Your task to perform on an android device: check the backup settings in the google photos Image 0: 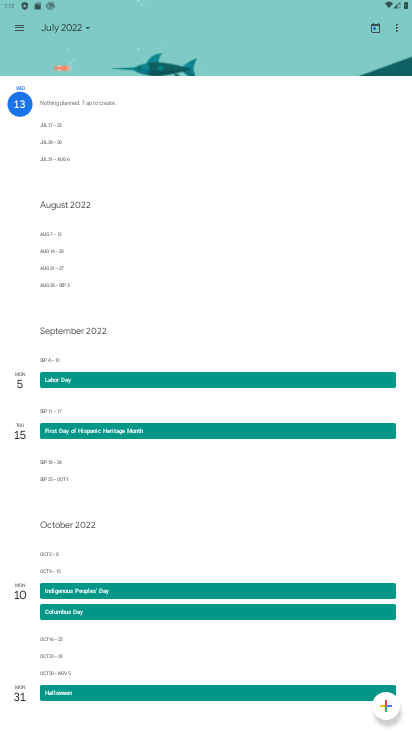
Step 0: press home button
Your task to perform on an android device: check the backup settings in the google photos Image 1: 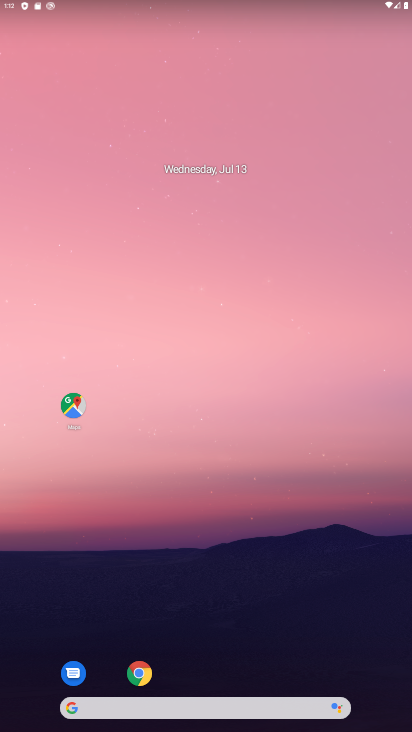
Step 1: drag from (220, 684) to (227, 147)
Your task to perform on an android device: check the backup settings in the google photos Image 2: 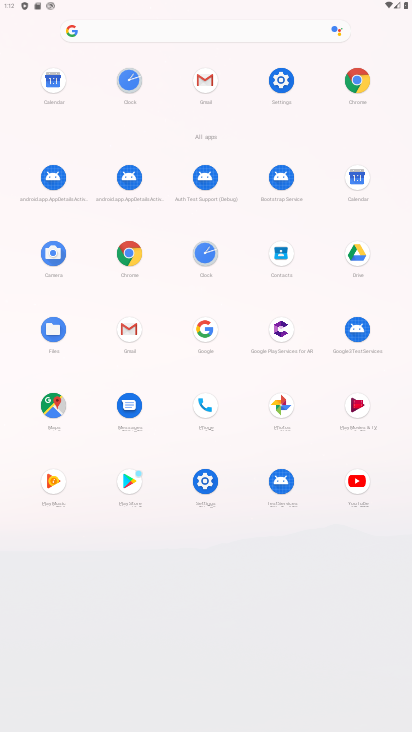
Step 2: click (277, 402)
Your task to perform on an android device: check the backup settings in the google photos Image 3: 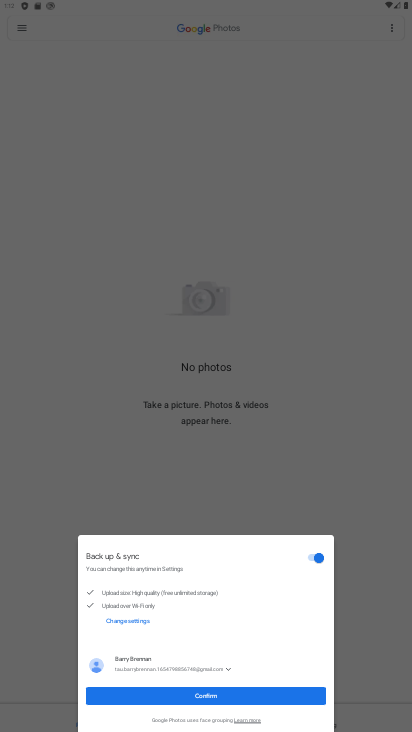
Step 3: click (231, 702)
Your task to perform on an android device: check the backup settings in the google photos Image 4: 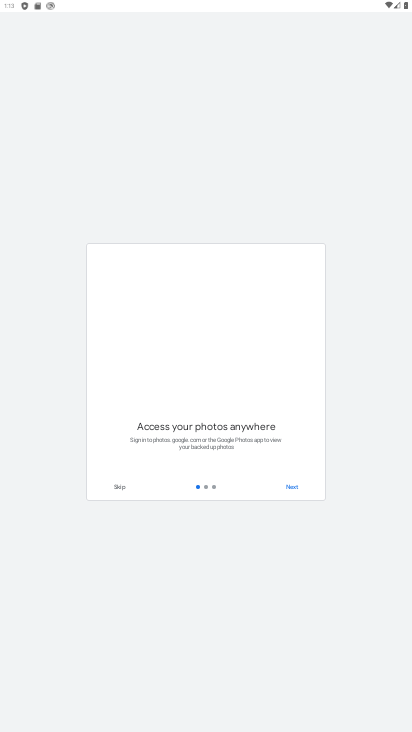
Step 4: click (124, 488)
Your task to perform on an android device: check the backup settings in the google photos Image 5: 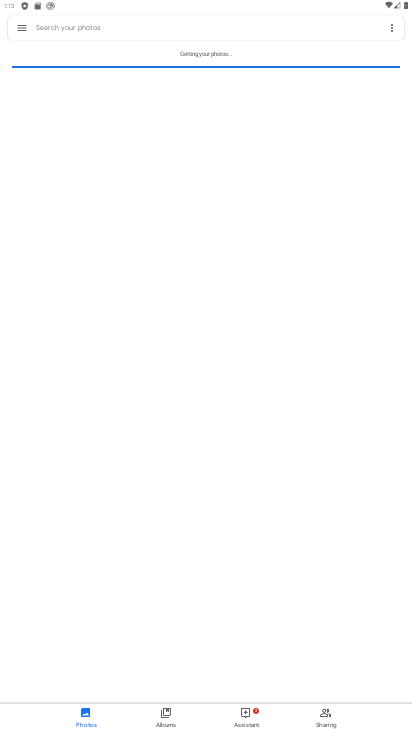
Step 5: click (21, 30)
Your task to perform on an android device: check the backup settings in the google photos Image 6: 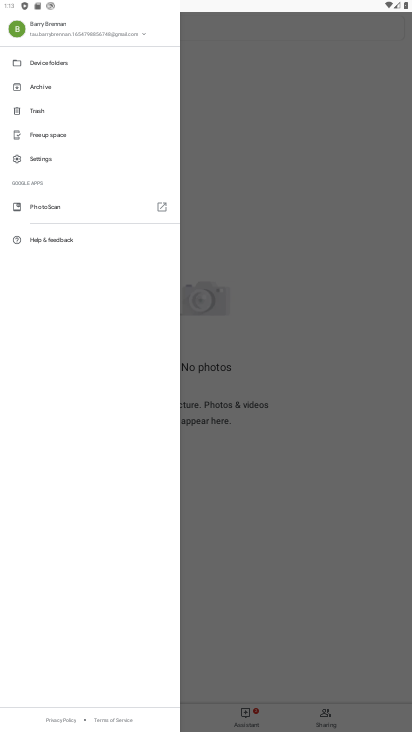
Step 6: click (33, 165)
Your task to perform on an android device: check the backup settings in the google photos Image 7: 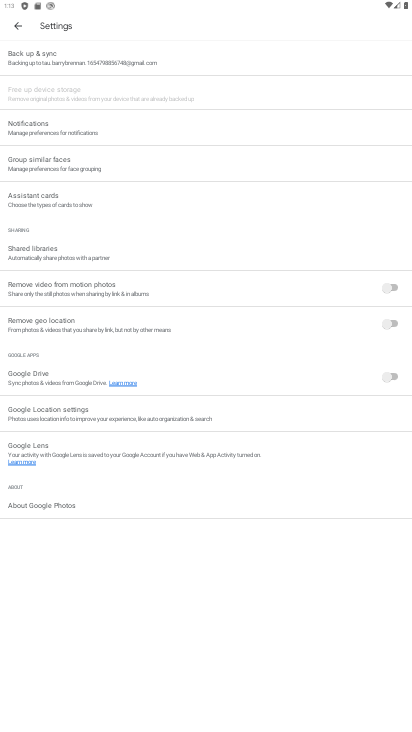
Step 7: click (36, 64)
Your task to perform on an android device: check the backup settings in the google photos Image 8: 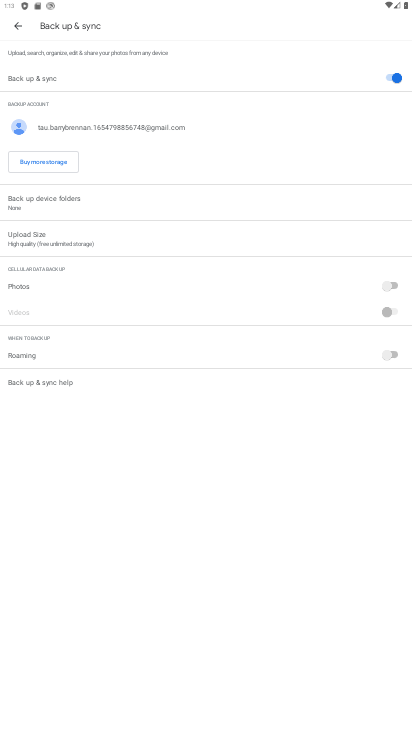
Step 8: task complete